Your task to perform on an android device: check data usage Image 0: 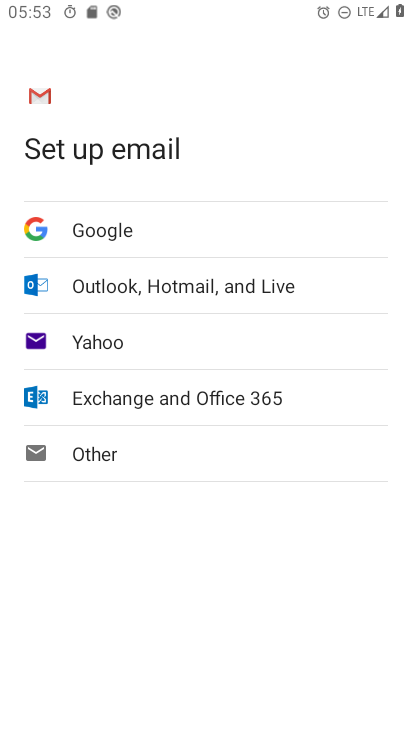
Step 0: press home button
Your task to perform on an android device: check data usage Image 1: 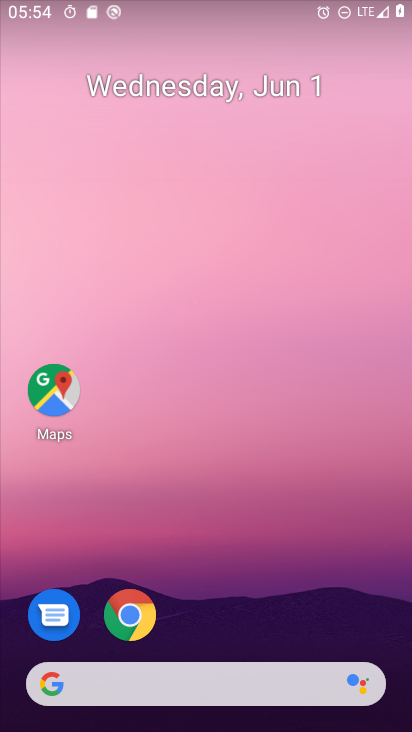
Step 1: drag from (250, 684) to (290, 27)
Your task to perform on an android device: check data usage Image 2: 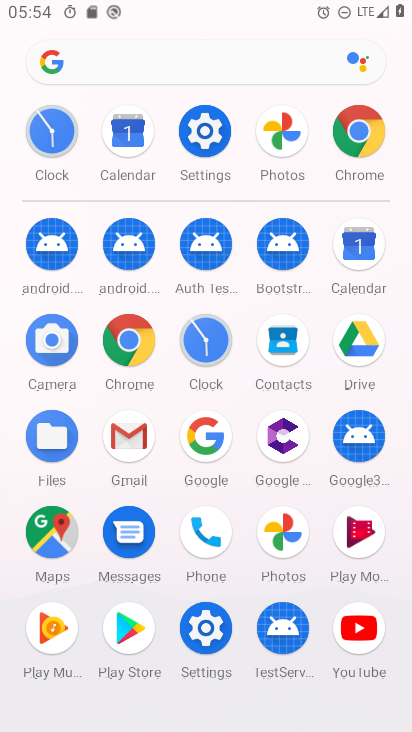
Step 2: click (209, 133)
Your task to perform on an android device: check data usage Image 3: 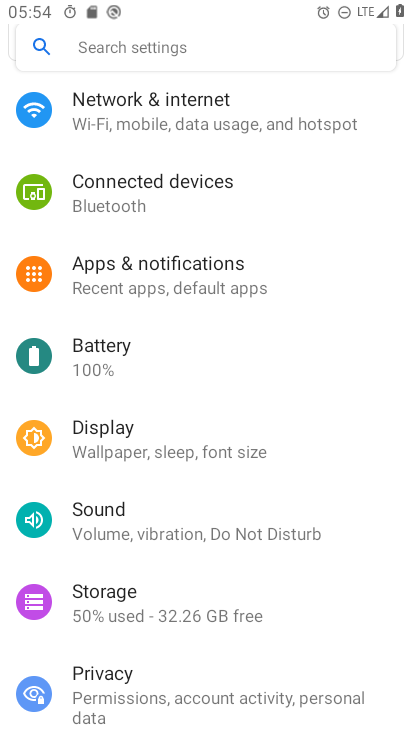
Step 3: drag from (194, 224) to (227, 521)
Your task to perform on an android device: check data usage Image 4: 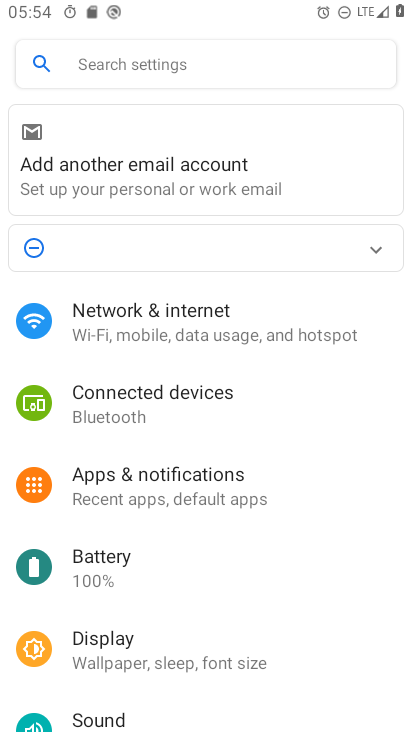
Step 4: click (235, 325)
Your task to perform on an android device: check data usage Image 5: 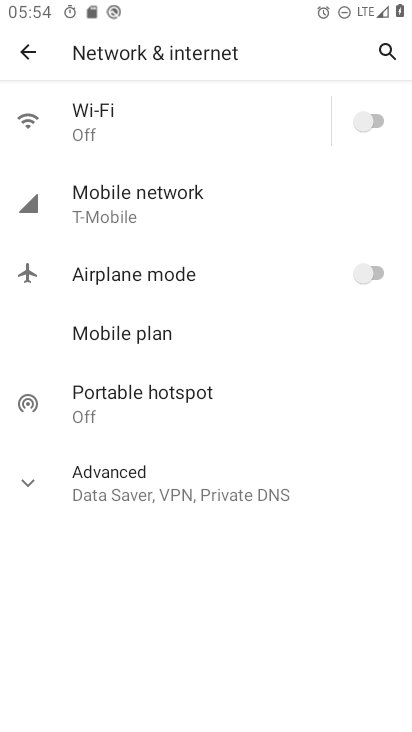
Step 5: task complete